Your task to perform on an android device: Search for "lenovo thinkpad" on amazon.com, select the first entry, add it to the cart, then select checkout. Image 0: 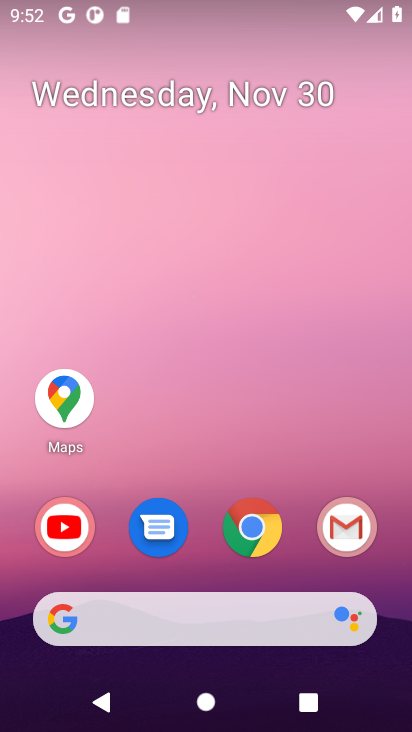
Step 0: click (253, 523)
Your task to perform on an android device: Search for "lenovo thinkpad" on amazon.com, select the first entry, add it to the cart, then select checkout. Image 1: 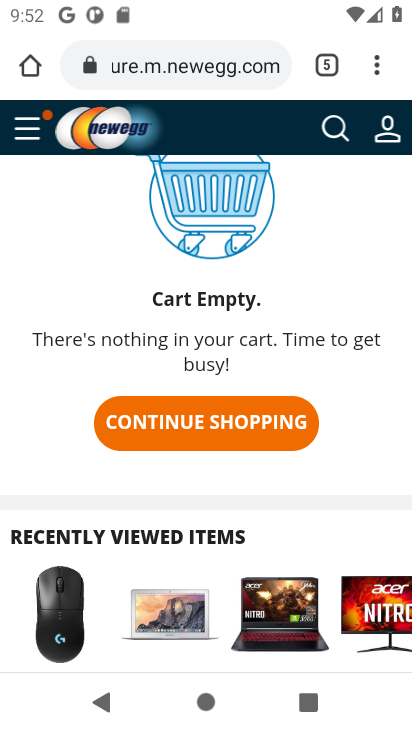
Step 1: click (225, 66)
Your task to perform on an android device: Search for "lenovo thinkpad" on amazon.com, select the first entry, add it to the cart, then select checkout. Image 2: 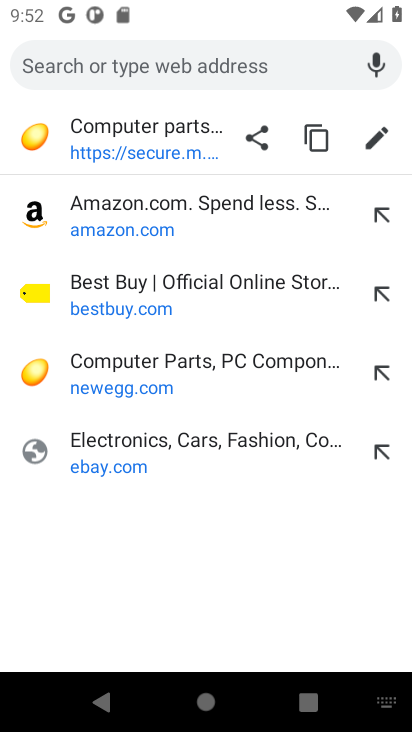
Step 2: click (208, 363)
Your task to perform on an android device: Search for "lenovo thinkpad" on amazon.com, select the first entry, add it to the cart, then select checkout. Image 3: 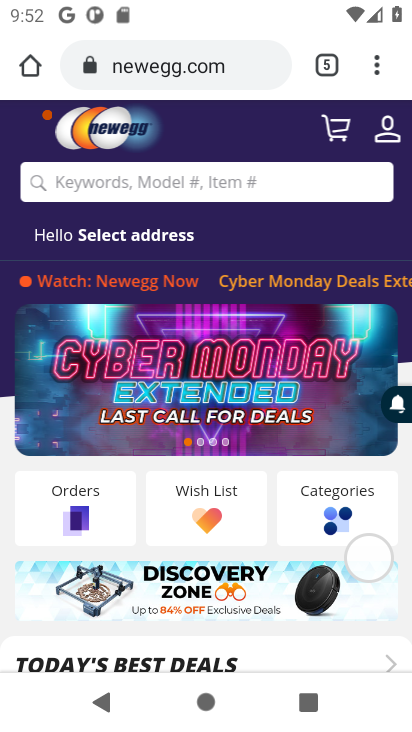
Step 3: click (231, 59)
Your task to perform on an android device: Search for "lenovo thinkpad" on amazon.com, select the first entry, add it to the cart, then select checkout. Image 4: 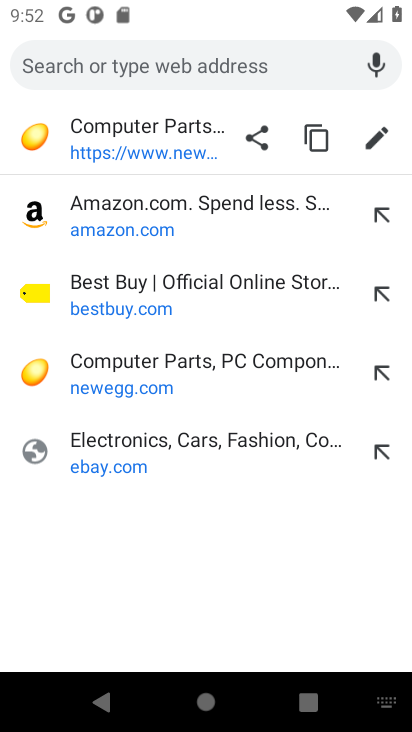
Step 4: click (210, 203)
Your task to perform on an android device: Search for "lenovo thinkpad" on amazon.com, select the first entry, add it to the cart, then select checkout. Image 5: 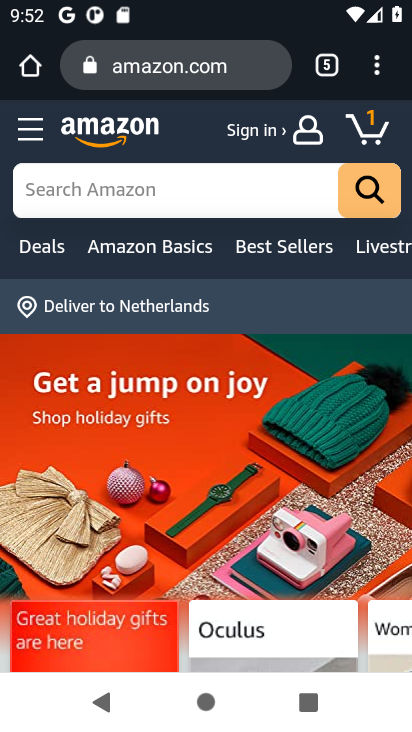
Step 5: click (279, 189)
Your task to perform on an android device: Search for "lenovo thinkpad" on amazon.com, select the first entry, add it to the cart, then select checkout. Image 6: 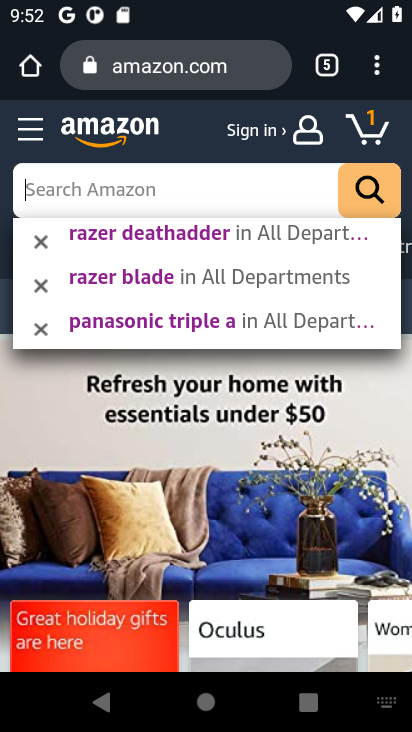
Step 6: type "lenovo thinkpad"
Your task to perform on an android device: Search for "lenovo thinkpad" on amazon.com, select the first entry, add it to the cart, then select checkout. Image 7: 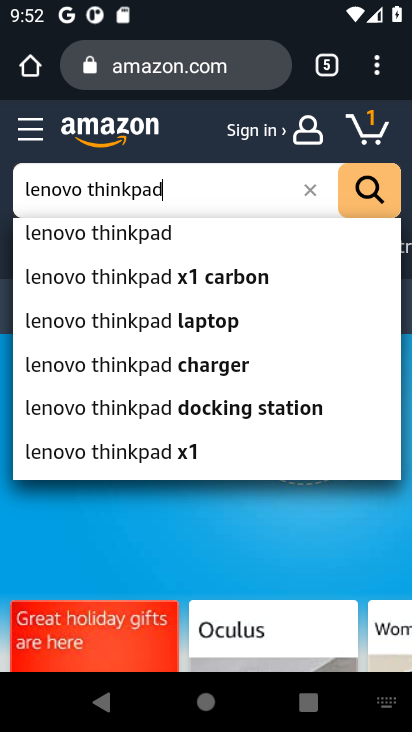
Step 7: click (147, 233)
Your task to perform on an android device: Search for "lenovo thinkpad" on amazon.com, select the first entry, add it to the cart, then select checkout. Image 8: 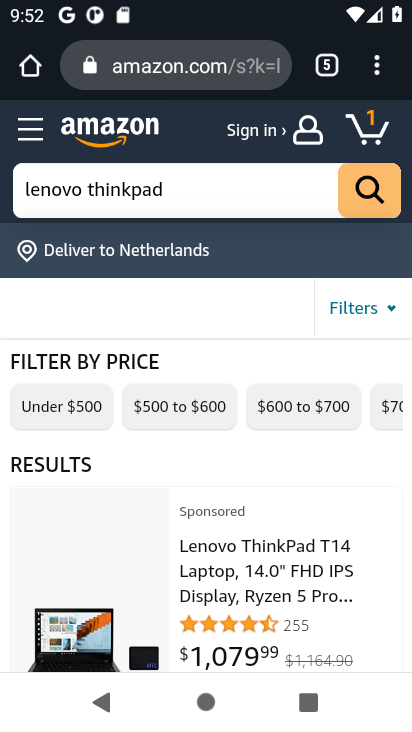
Step 8: drag from (341, 498) to (333, 315)
Your task to perform on an android device: Search for "lenovo thinkpad" on amazon.com, select the first entry, add it to the cart, then select checkout. Image 9: 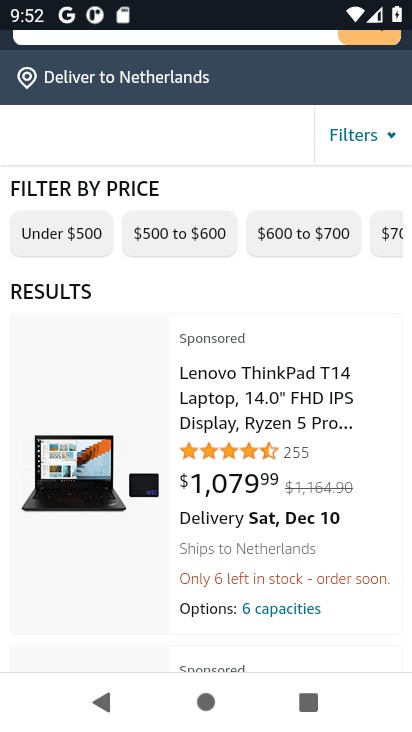
Step 9: click (116, 429)
Your task to perform on an android device: Search for "lenovo thinkpad" on amazon.com, select the first entry, add it to the cart, then select checkout. Image 10: 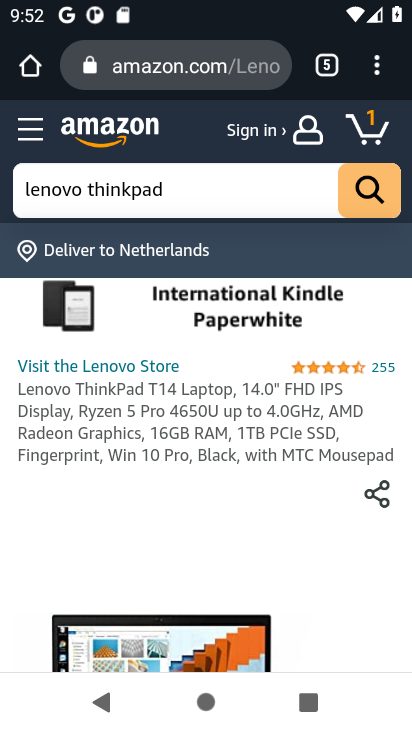
Step 10: drag from (334, 588) to (374, 6)
Your task to perform on an android device: Search for "lenovo thinkpad" on amazon.com, select the first entry, add it to the cart, then select checkout. Image 11: 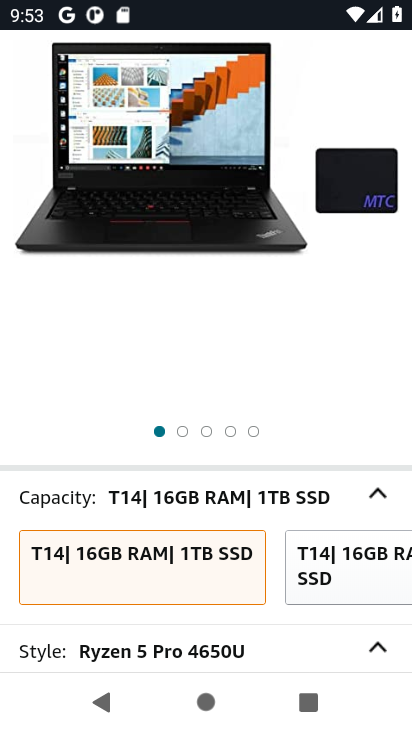
Step 11: drag from (357, 470) to (347, 9)
Your task to perform on an android device: Search for "lenovo thinkpad" on amazon.com, select the first entry, add it to the cart, then select checkout. Image 12: 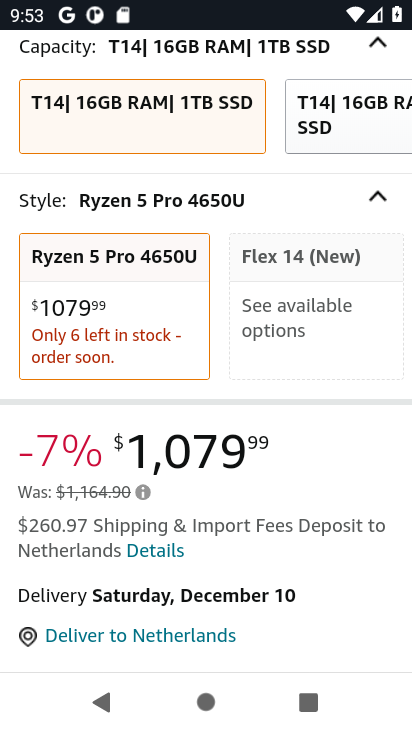
Step 12: drag from (344, 632) to (331, 91)
Your task to perform on an android device: Search for "lenovo thinkpad" on amazon.com, select the first entry, add it to the cart, then select checkout. Image 13: 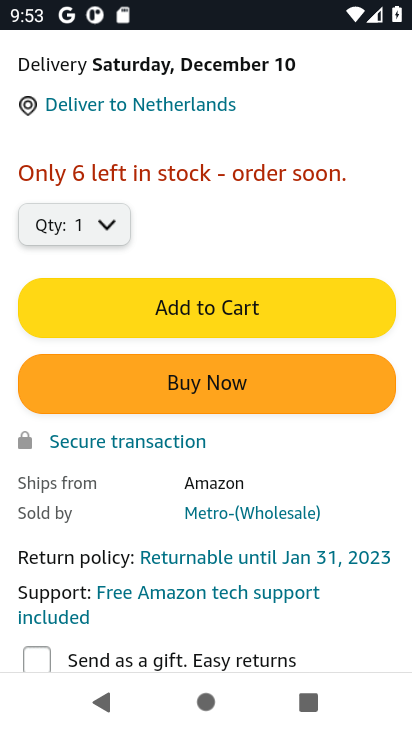
Step 13: click (225, 304)
Your task to perform on an android device: Search for "lenovo thinkpad" on amazon.com, select the first entry, add it to the cart, then select checkout. Image 14: 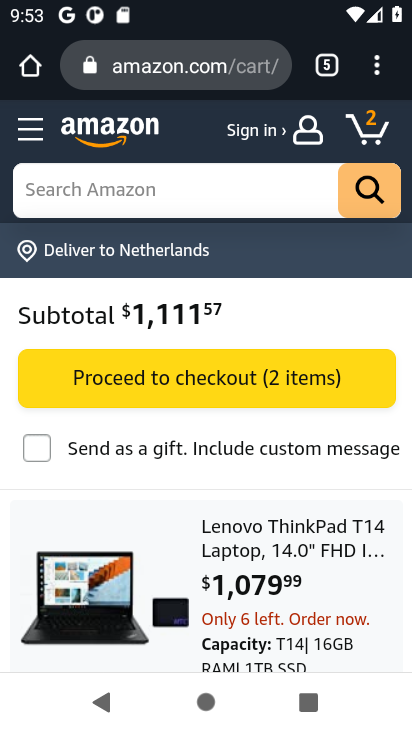
Step 14: drag from (348, 488) to (376, 18)
Your task to perform on an android device: Search for "lenovo thinkpad" on amazon.com, select the first entry, add it to the cart, then select checkout. Image 15: 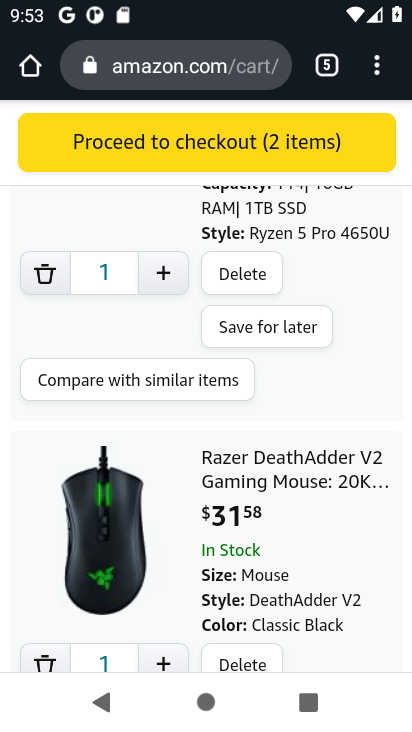
Step 15: click (224, 136)
Your task to perform on an android device: Search for "lenovo thinkpad" on amazon.com, select the first entry, add it to the cart, then select checkout. Image 16: 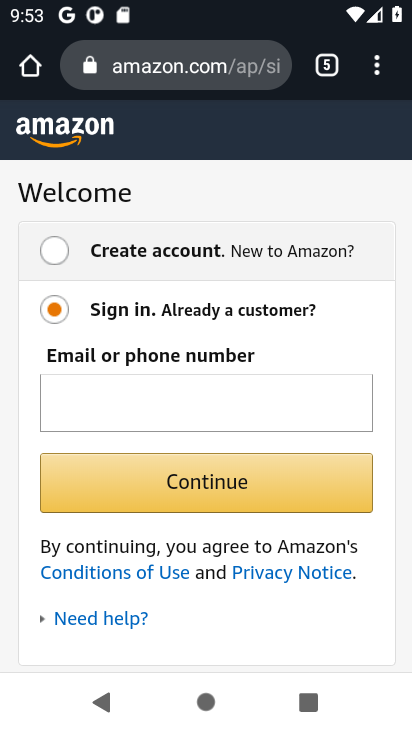
Step 16: task complete